Your task to perform on an android device: Open eBay Image 0: 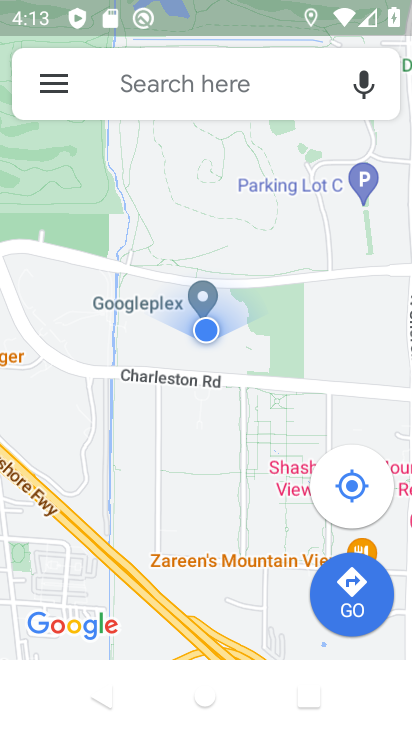
Step 0: press home button
Your task to perform on an android device: Open eBay Image 1: 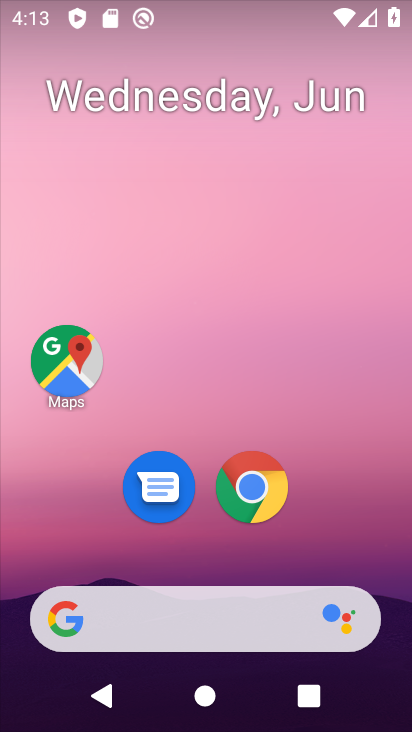
Step 1: click (258, 491)
Your task to perform on an android device: Open eBay Image 2: 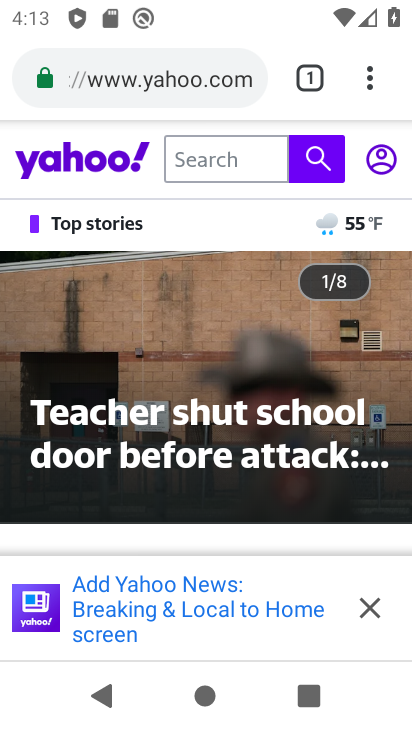
Step 2: click (209, 82)
Your task to perform on an android device: Open eBay Image 3: 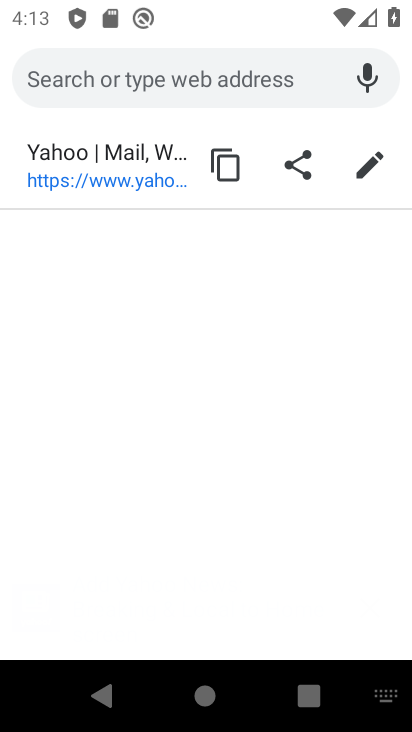
Step 3: type "ebay"
Your task to perform on an android device: Open eBay Image 4: 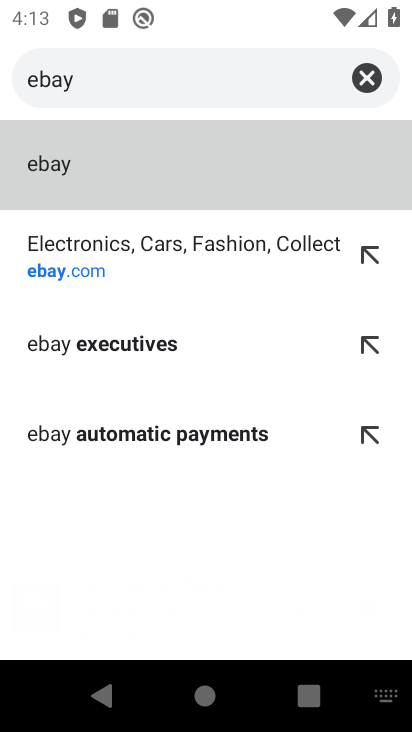
Step 4: click (52, 278)
Your task to perform on an android device: Open eBay Image 5: 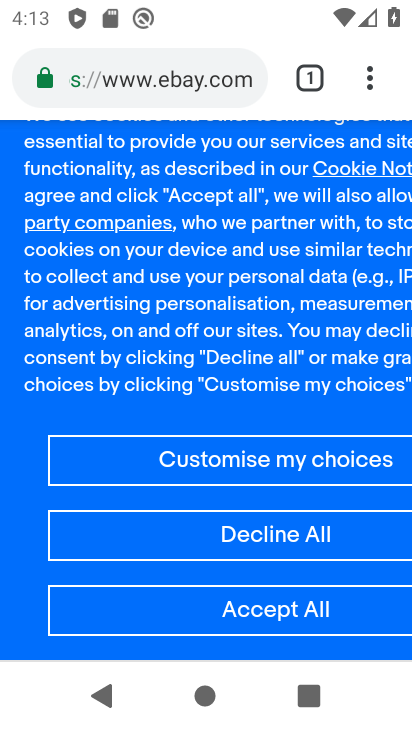
Step 5: task complete